Your task to perform on an android device: Open the web browser Image 0: 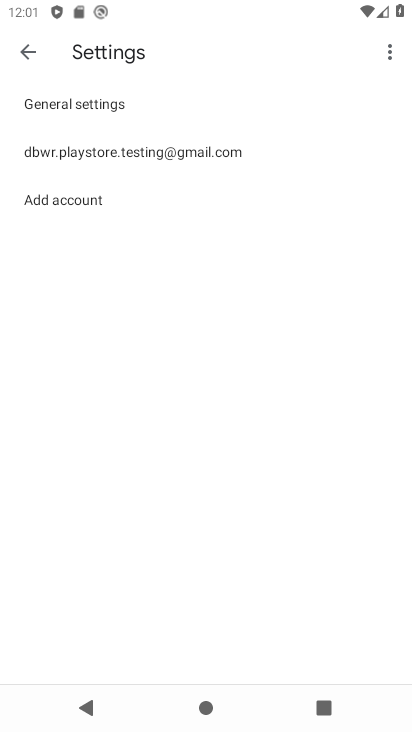
Step 0: press home button
Your task to perform on an android device: Open the web browser Image 1: 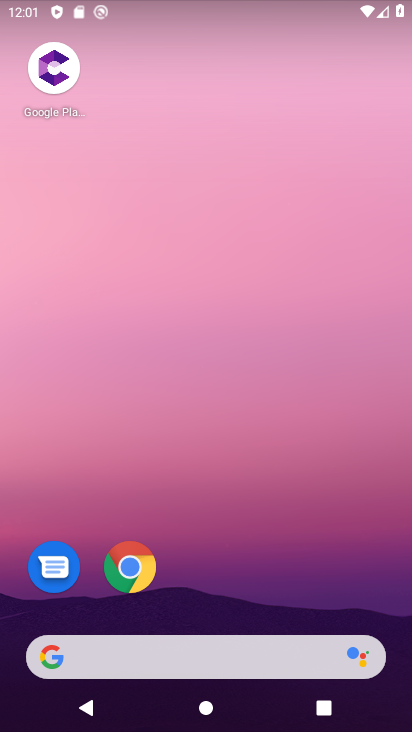
Step 1: click (138, 571)
Your task to perform on an android device: Open the web browser Image 2: 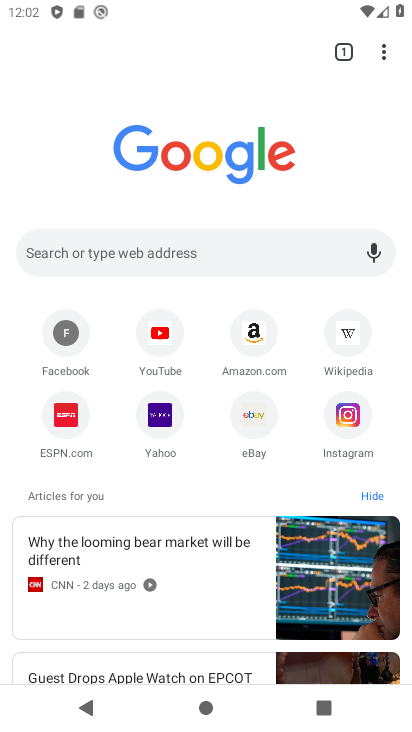
Step 2: task complete